Your task to perform on an android device: open a new tab in the chrome app Image 0: 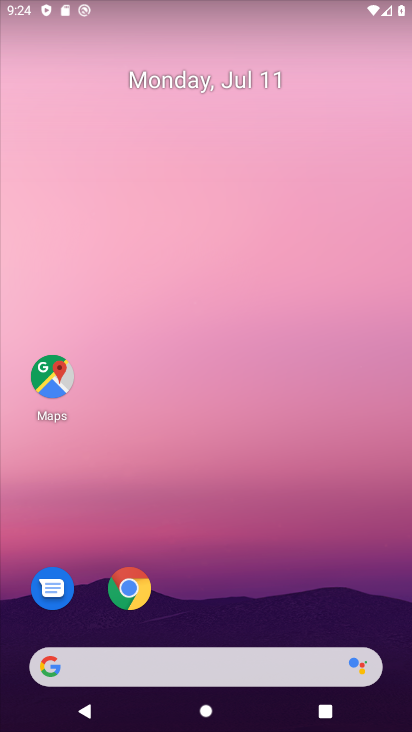
Step 0: click (132, 591)
Your task to perform on an android device: open a new tab in the chrome app Image 1: 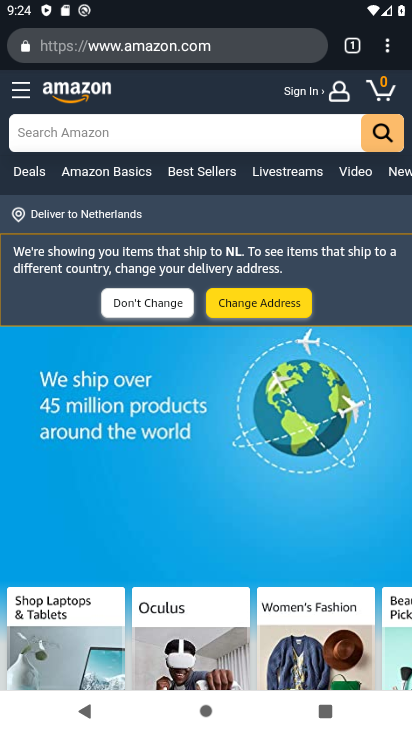
Step 1: click (394, 47)
Your task to perform on an android device: open a new tab in the chrome app Image 2: 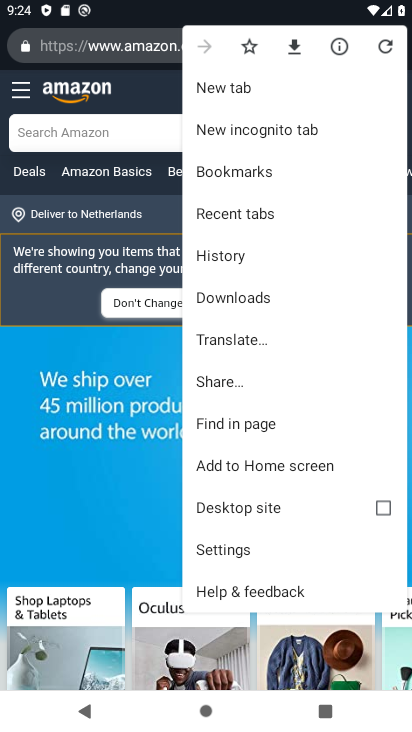
Step 2: click (250, 83)
Your task to perform on an android device: open a new tab in the chrome app Image 3: 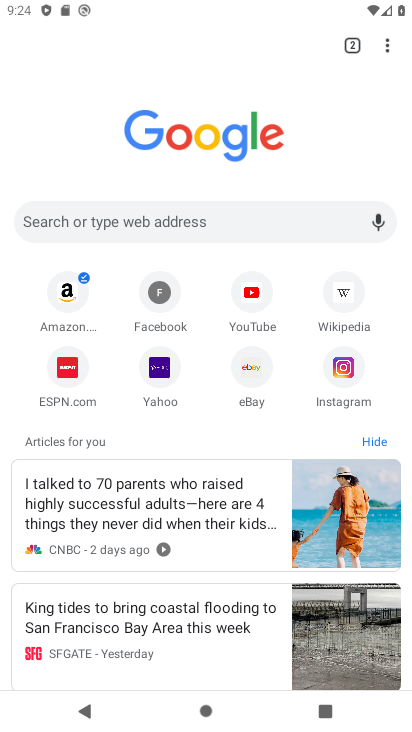
Step 3: task complete